Your task to perform on an android device: Check the weather Image 0: 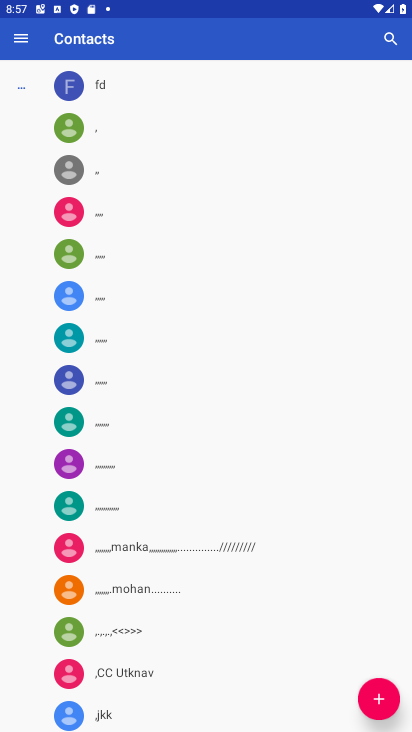
Step 0: press home button
Your task to perform on an android device: Check the weather Image 1: 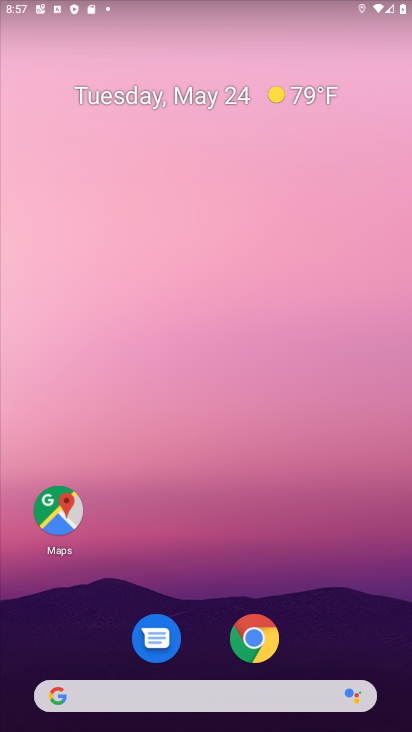
Step 1: click (156, 701)
Your task to perform on an android device: Check the weather Image 2: 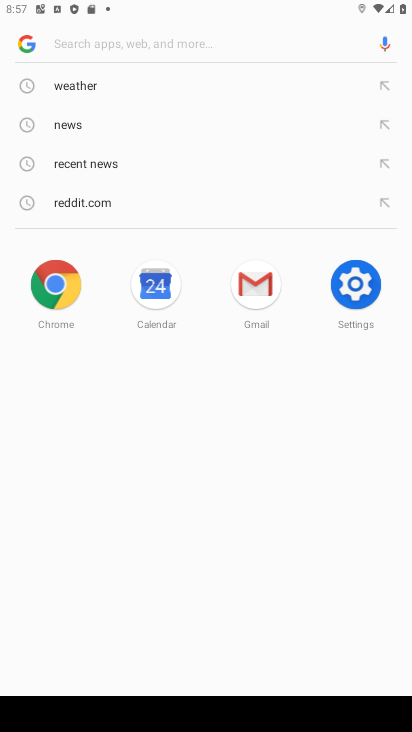
Step 2: click (83, 87)
Your task to perform on an android device: Check the weather Image 3: 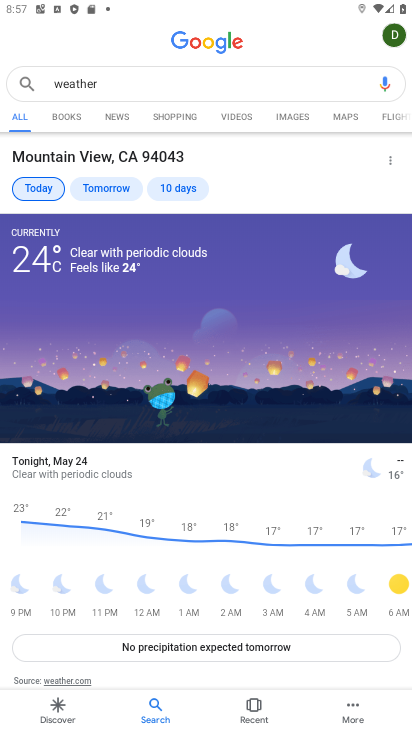
Step 3: task complete